Your task to perform on an android device: Is it going to rain today? Image 0: 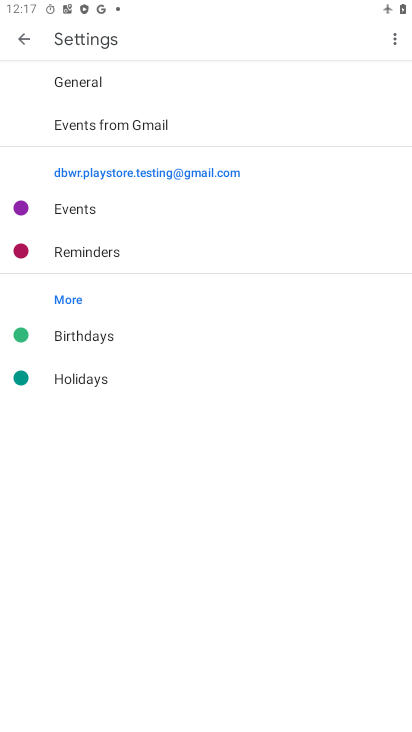
Step 0: press home button
Your task to perform on an android device: Is it going to rain today? Image 1: 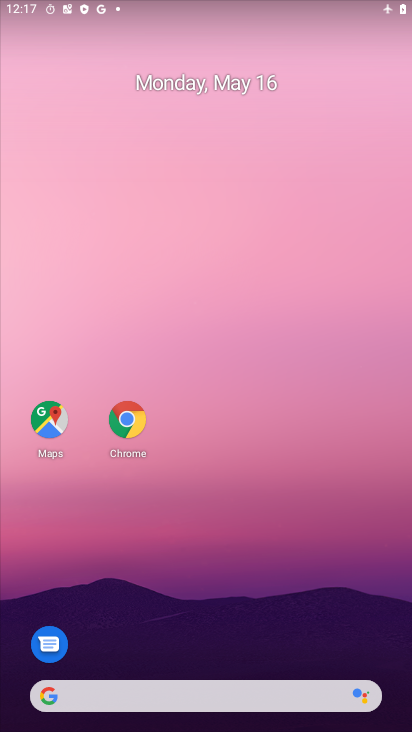
Step 1: drag from (173, 542) to (130, 143)
Your task to perform on an android device: Is it going to rain today? Image 2: 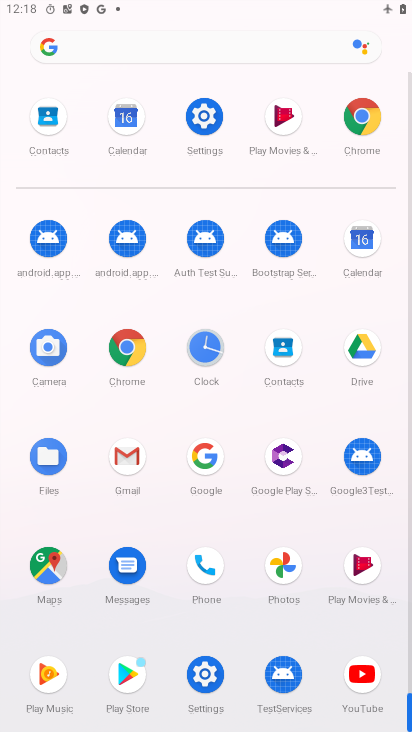
Step 2: click (219, 52)
Your task to perform on an android device: Is it going to rain today? Image 3: 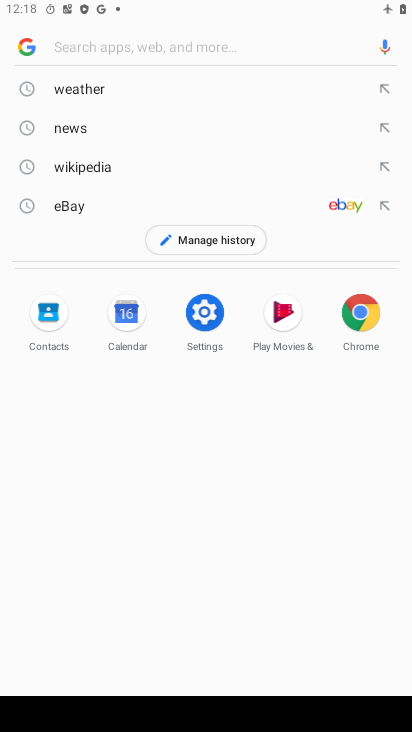
Step 3: type "rain today"
Your task to perform on an android device: Is it going to rain today? Image 4: 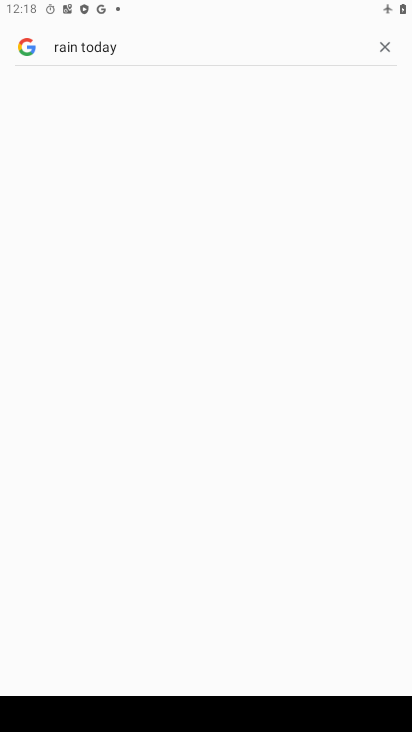
Step 4: click (214, 149)
Your task to perform on an android device: Is it going to rain today? Image 5: 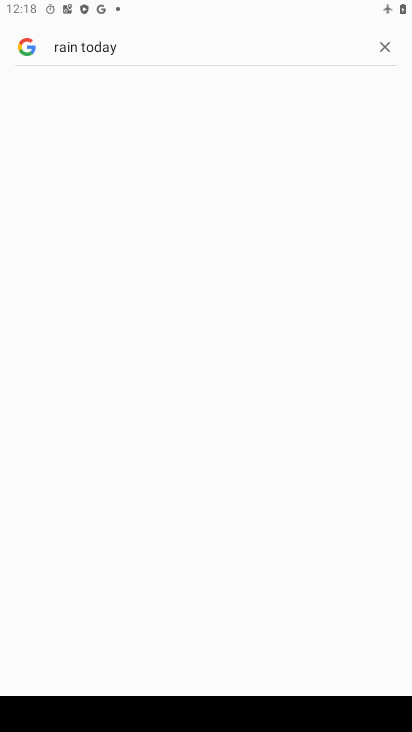
Step 5: task complete